Your task to perform on an android device: Go to Google maps Image 0: 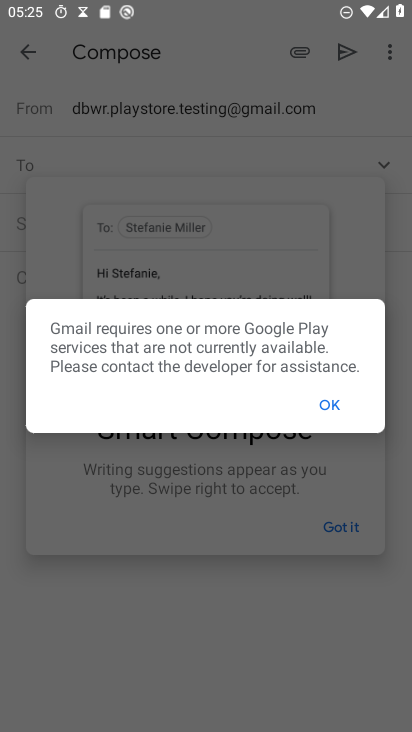
Step 0: press home button
Your task to perform on an android device: Go to Google maps Image 1: 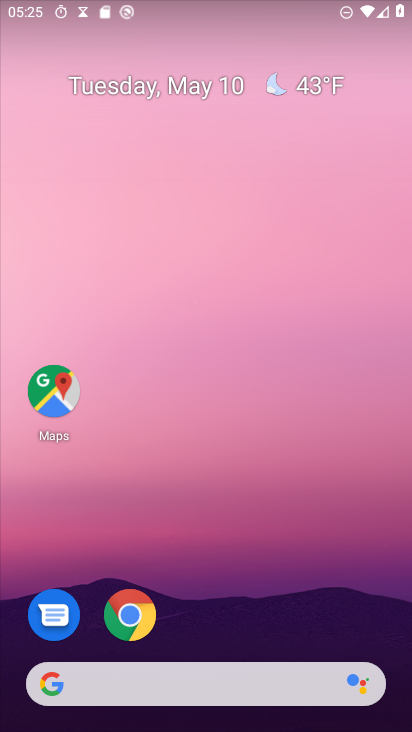
Step 1: drag from (297, 619) to (351, 60)
Your task to perform on an android device: Go to Google maps Image 2: 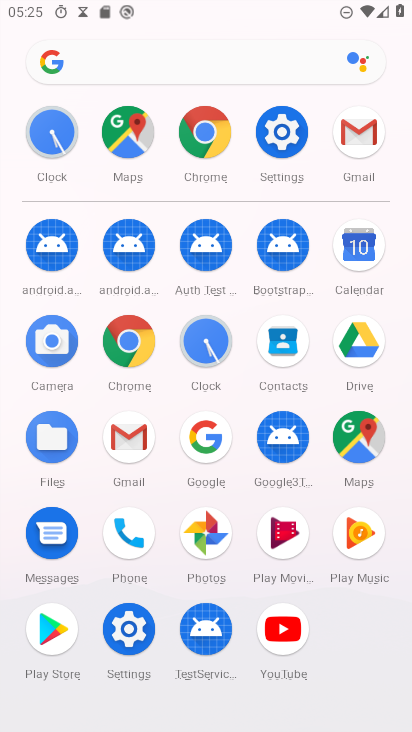
Step 2: click (364, 446)
Your task to perform on an android device: Go to Google maps Image 3: 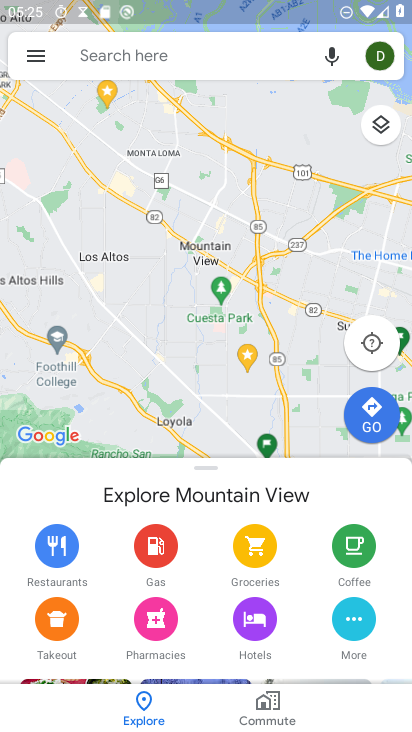
Step 3: task complete